Your task to perform on an android device: Open sound settings Image 0: 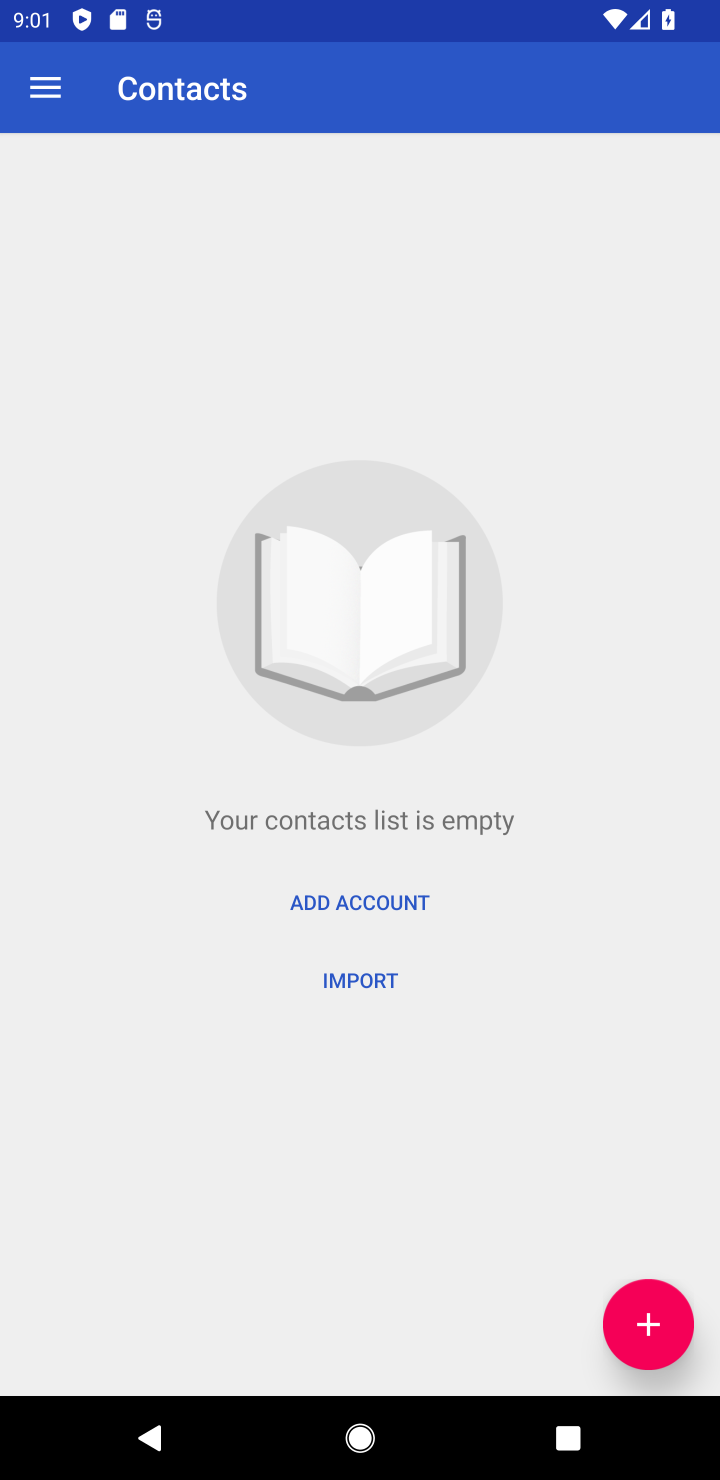
Step 0: press home button
Your task to perform on an android device: Open sound settings Image 1: 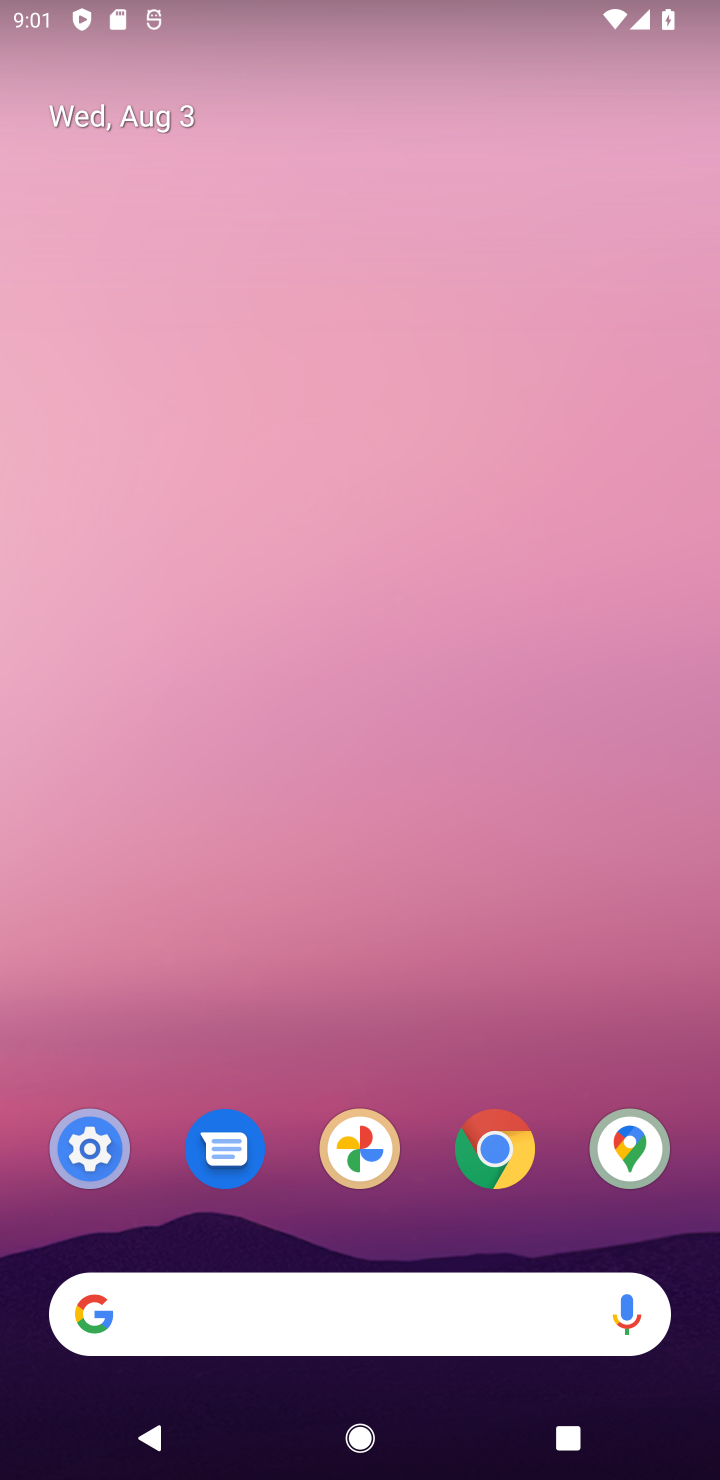
Step 1: click (87, 1149)
Your task to perform on an android device: Open sound settings Image 2: 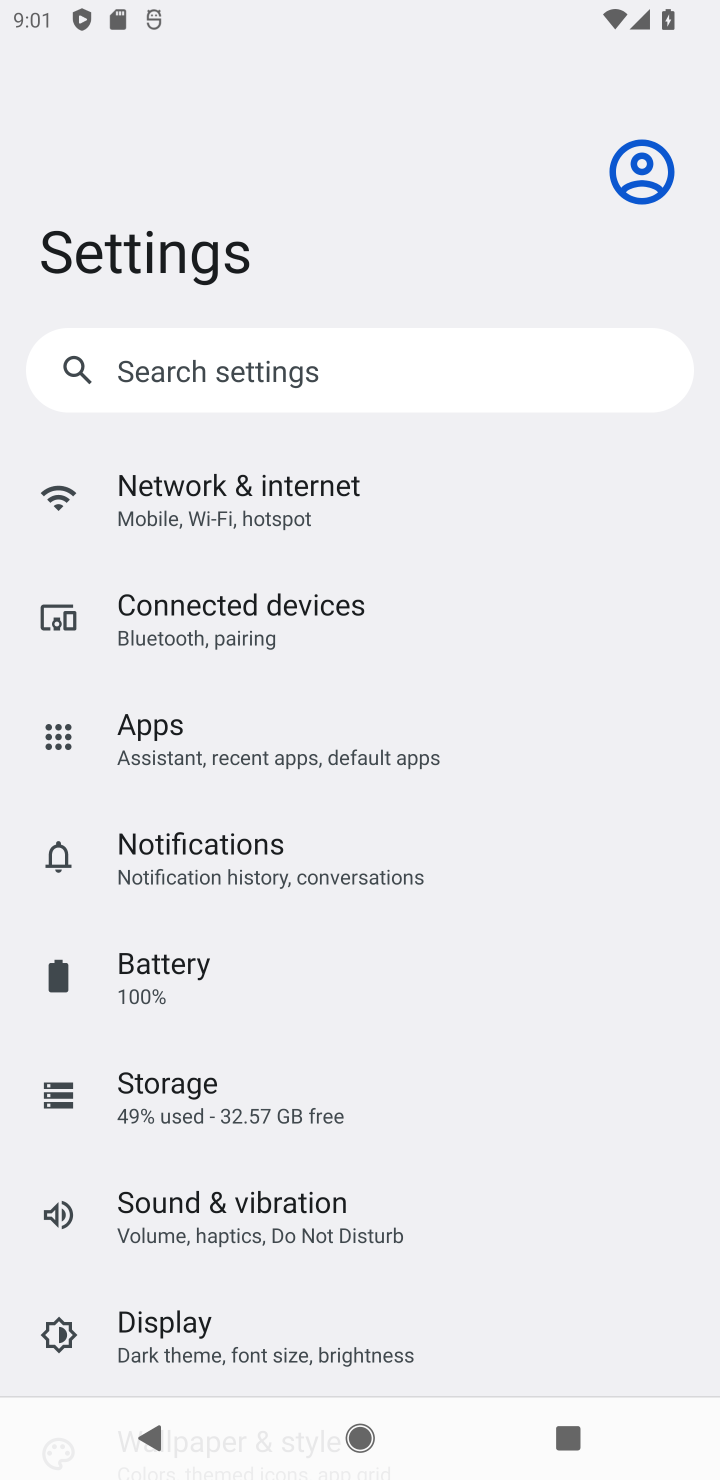
Step 2: click (223, 1219)
Your task to perform on an android device: Open sound settings Image 3: 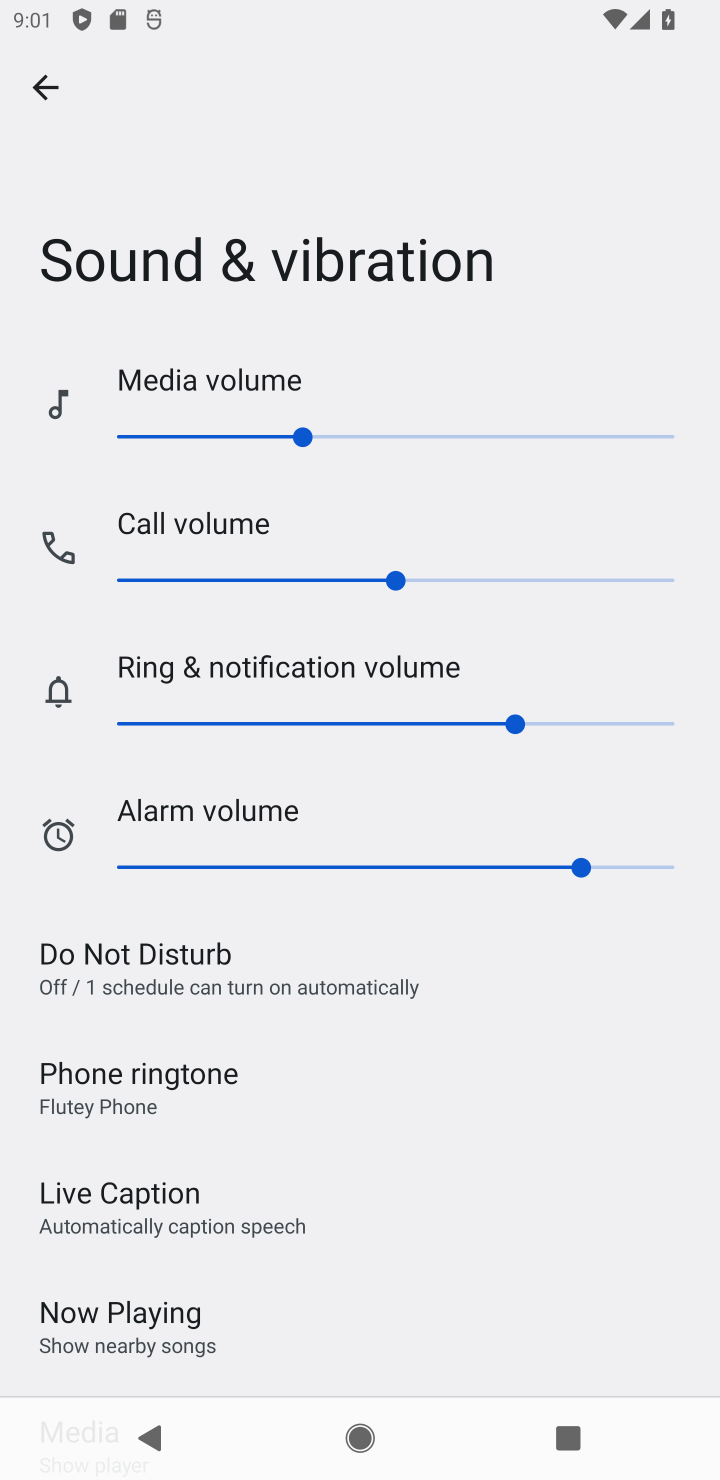
Step 3: task complete